Your task to perform on an android device: Open privacy settings Image 0: 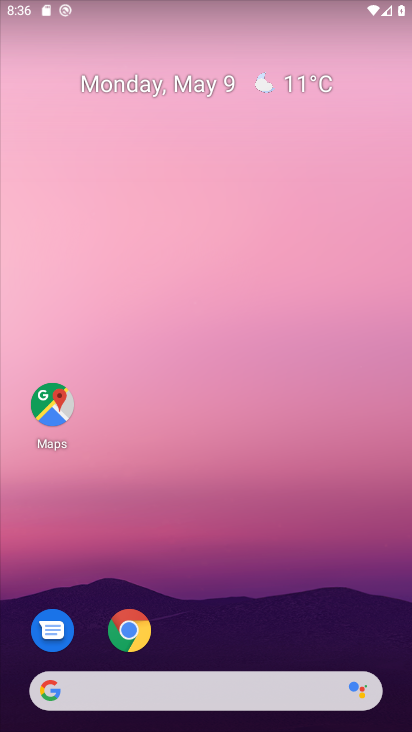
Step 0: drag from (226, 578) to (274, 179)
Your task to perform on an android device: Open privacy settings Image 1: 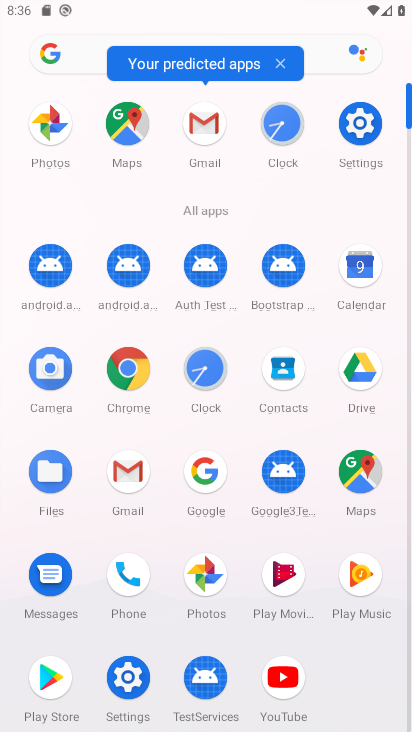
Step 1: click (361, 140)
Your task to perform on an android device: Open privacy settings Image 2: 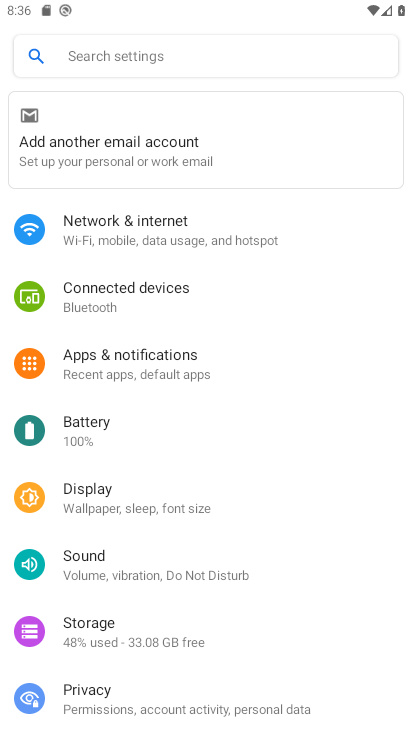
Step 2: click (115, 696)
Your task to perform on an android device: Open privacy settings Image 3: 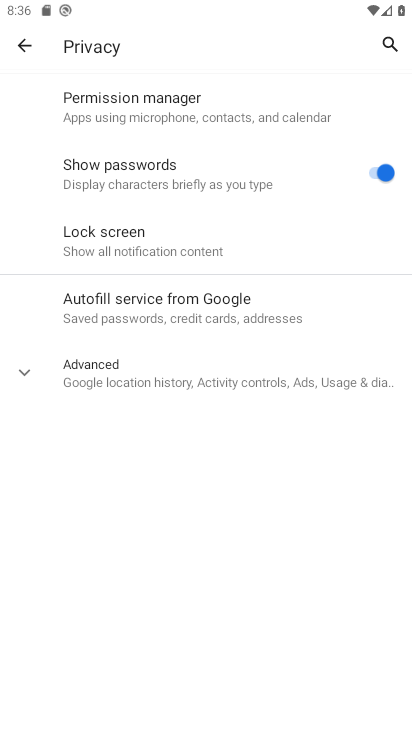
Step 3: task complete